Your task to perform on an android device: Open settings Image 0: 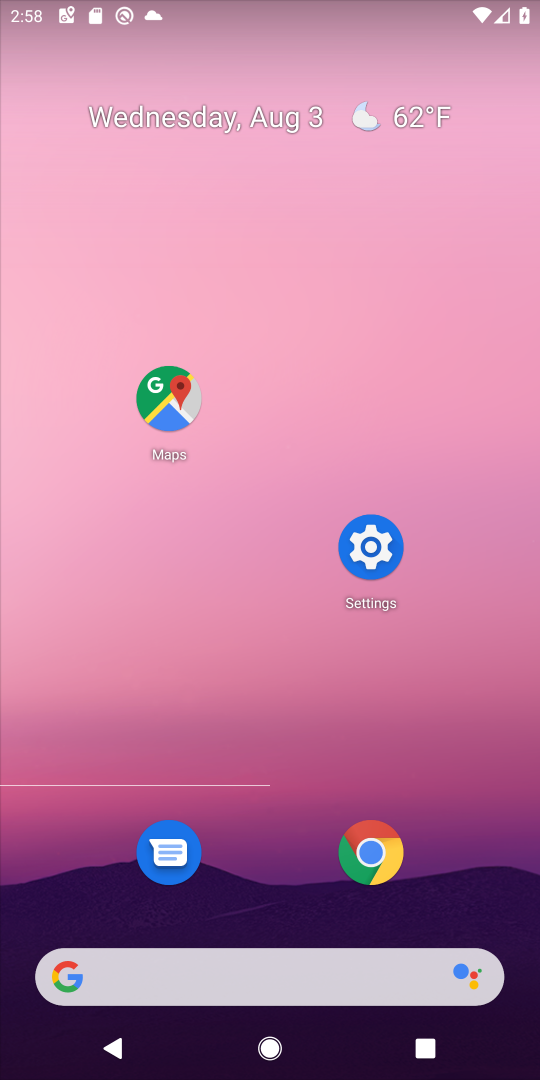
Step 0: click (363, 556)
Your task to perform on an android device: Open settings Image 1: 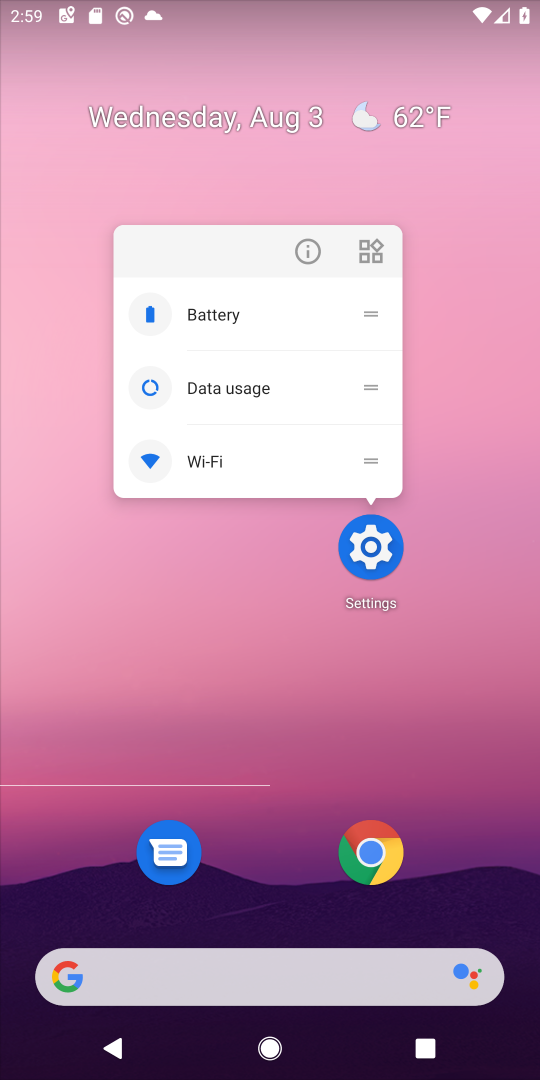
Step 1: click (367, 555)
Your task to perform on an android device: Open settings Image 2: 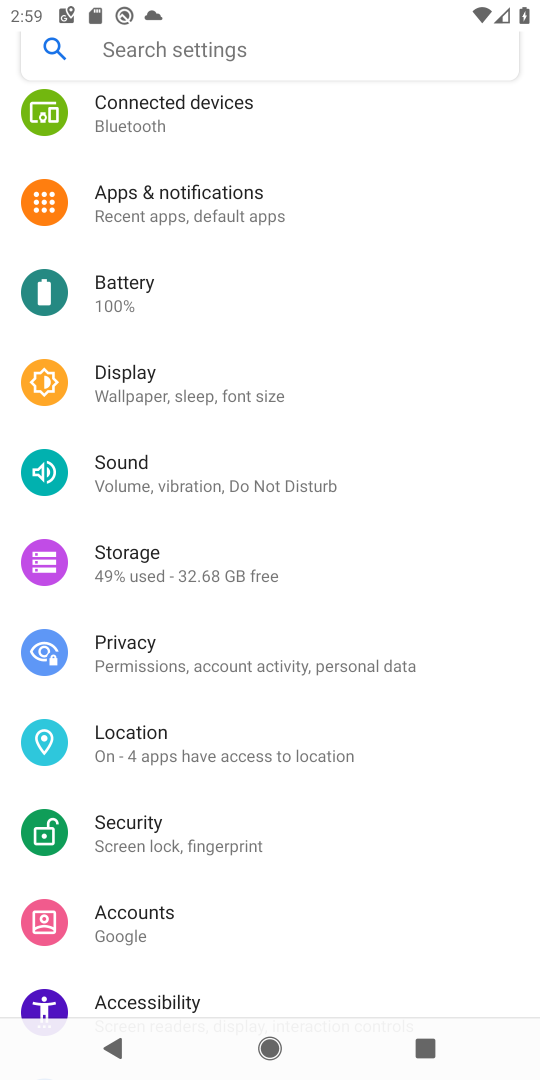
Step 2: task complete